Your task to perform on an android device: change the upload size in google photos Image 0: 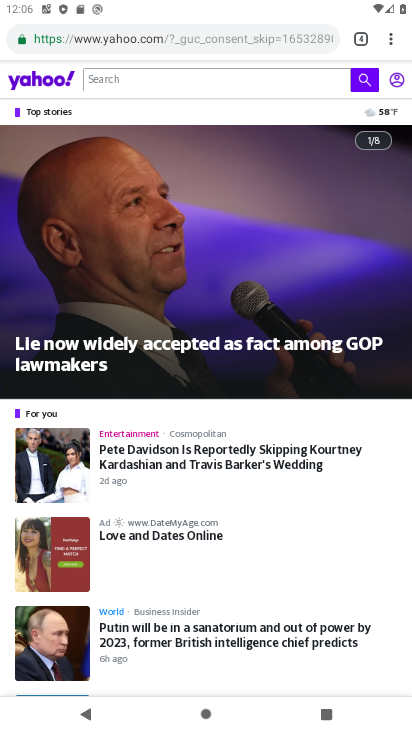
Step 0: press home button
Your task to perform on an android device: change the upload size in google photos Image 1: 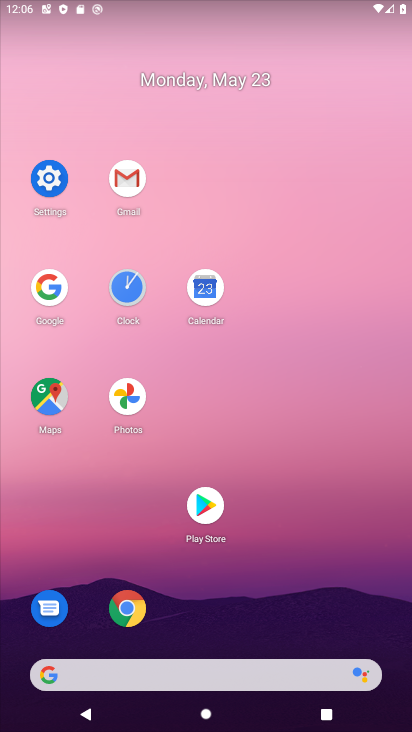
Step 1: click (135, 407)
Your task to perform on an android device: change the upload size in google photos Image 2: 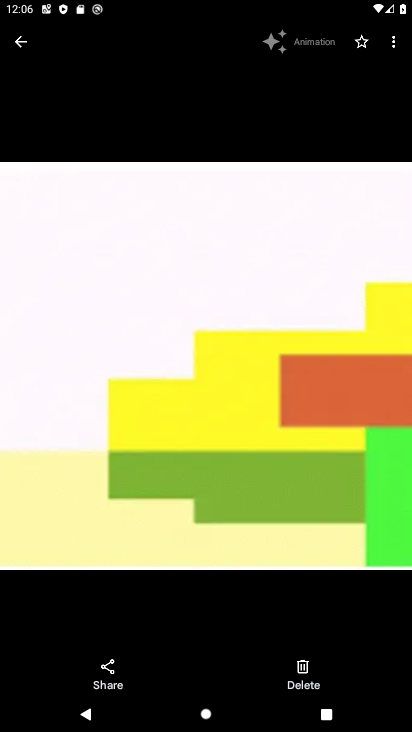
Step 2: click (32, 39)
Your task to perform on an android device: change the upload size in google photos Image 3: 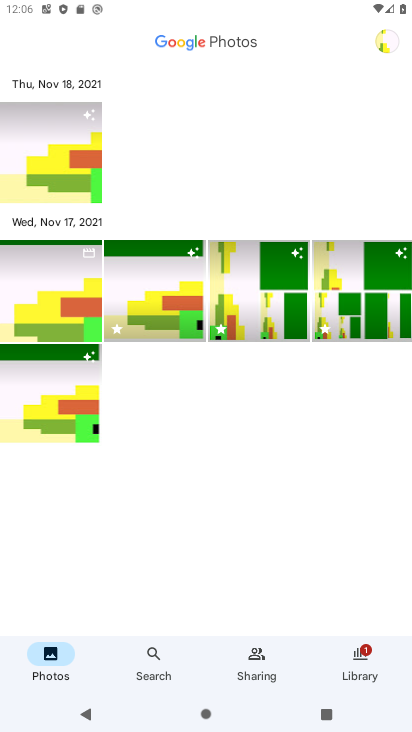
Step 3: click (383, 32)
Your task to perform on an android device: change the upload size in google photos Image 4: 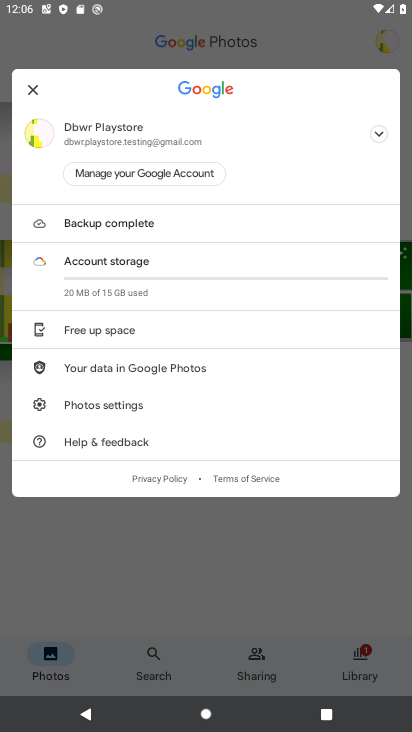
Step 4: click (126, 416)
Your task to perform on an android device: change the upload size in google photos Image 5: 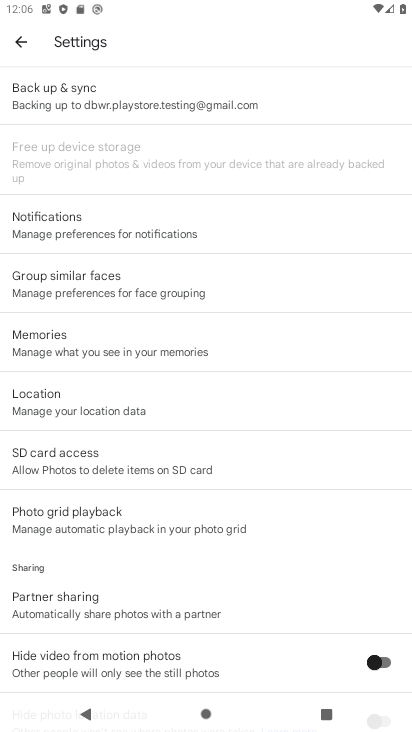
Step 5: click (84, 92)
Your task to perform on an android device: change the upload size in google photos Image 6: 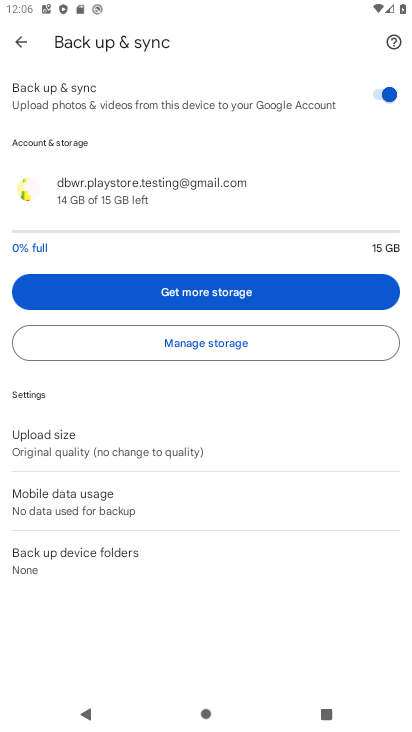
Step 6: click (175, 458)
Your task to perform on an android device: change the upload size in google photos Image 7: 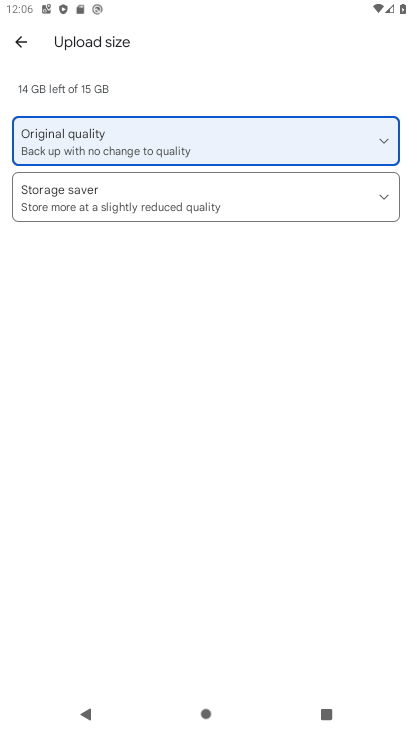
Step 7: click (161, 204)
Your task to perform on an android device: change the upload size in google photos Image 8: 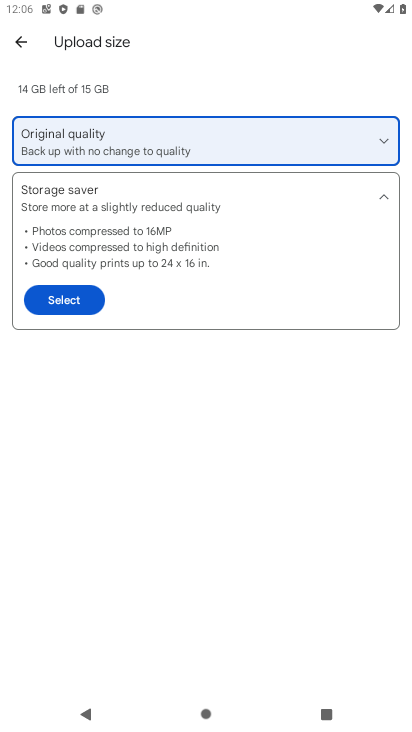
Step 8: click (94, 291)
Your task to perform on an android device: change the upload size in google photos Image 9: 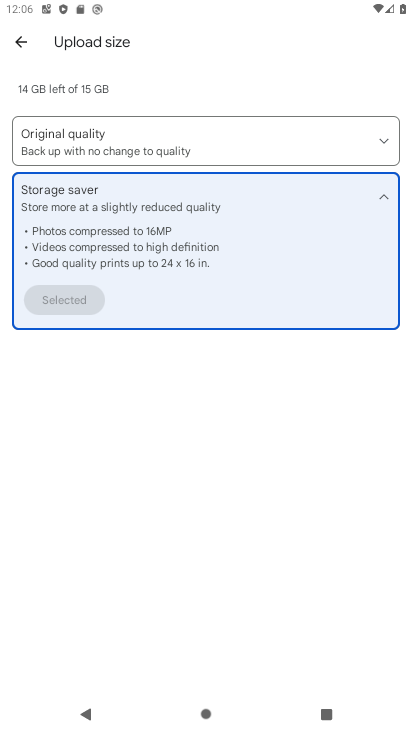
Step 9: task complete